Your task to perform on an android device: Open maps Image 0: 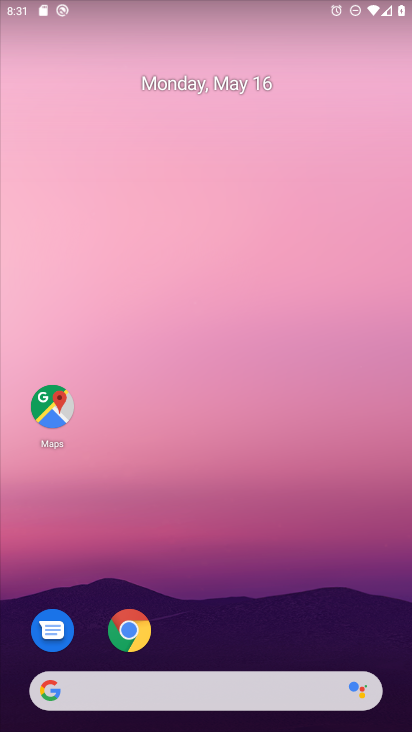
Step 0: drag from (220, 603) to (220, 131)
Your task to perform on an android device: Open maps Image 1: 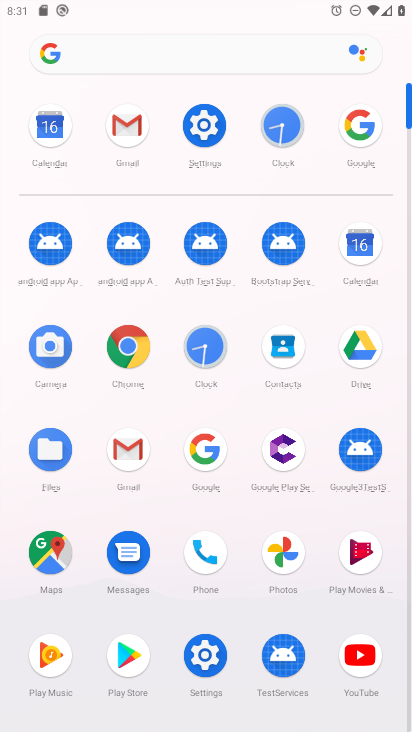
Step 1: click (49, 550)
Your task to perform on an android device: Open maps Image 2: 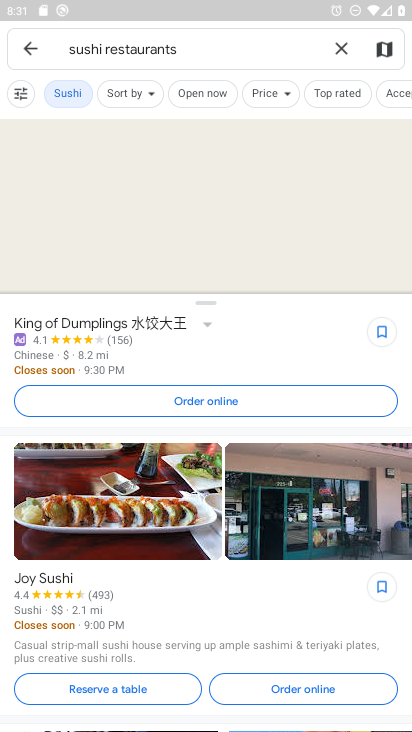
Step 2: task complete